Your task to perform on an android device: Go to accessibility settings Image 0: 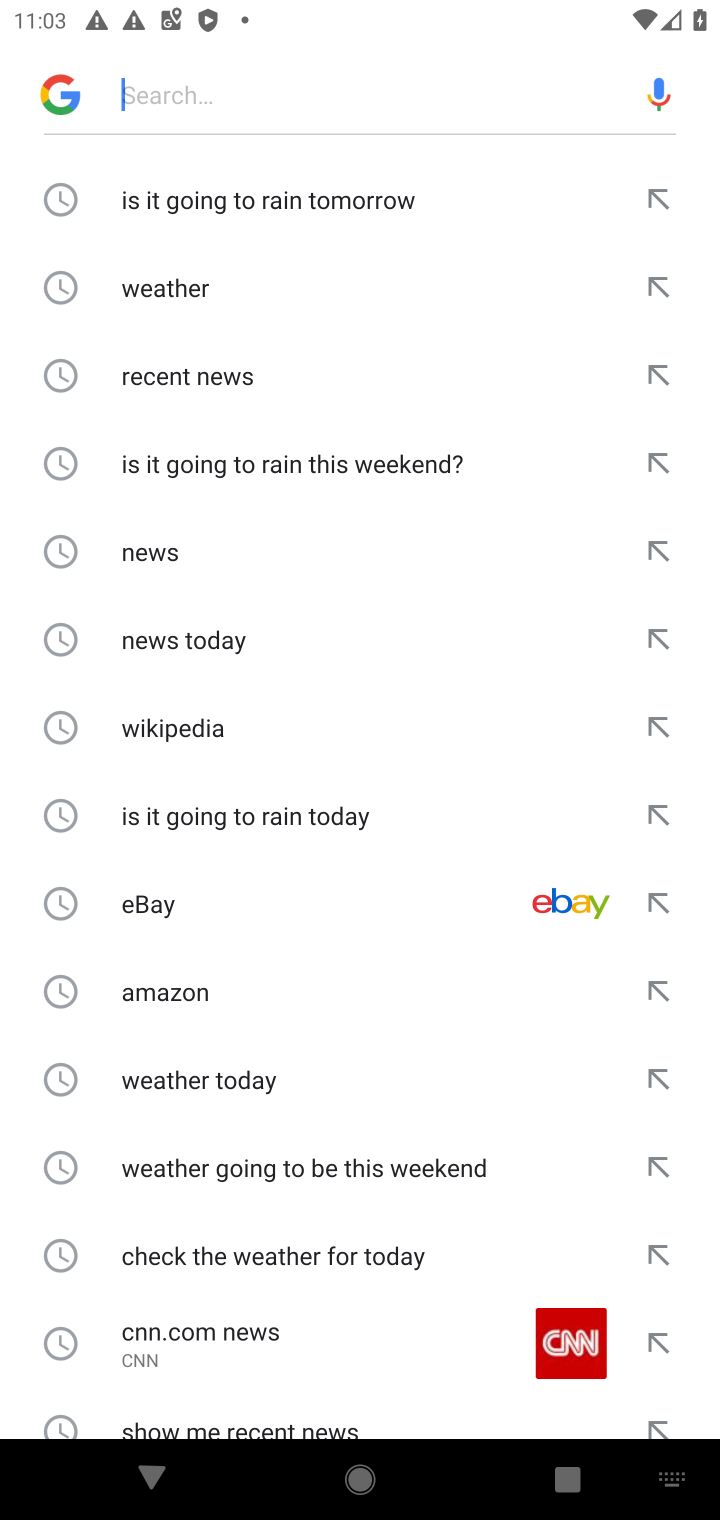
Step 0: press home button
Your task to perform on an android device: Go to accessibility settings Image 1: 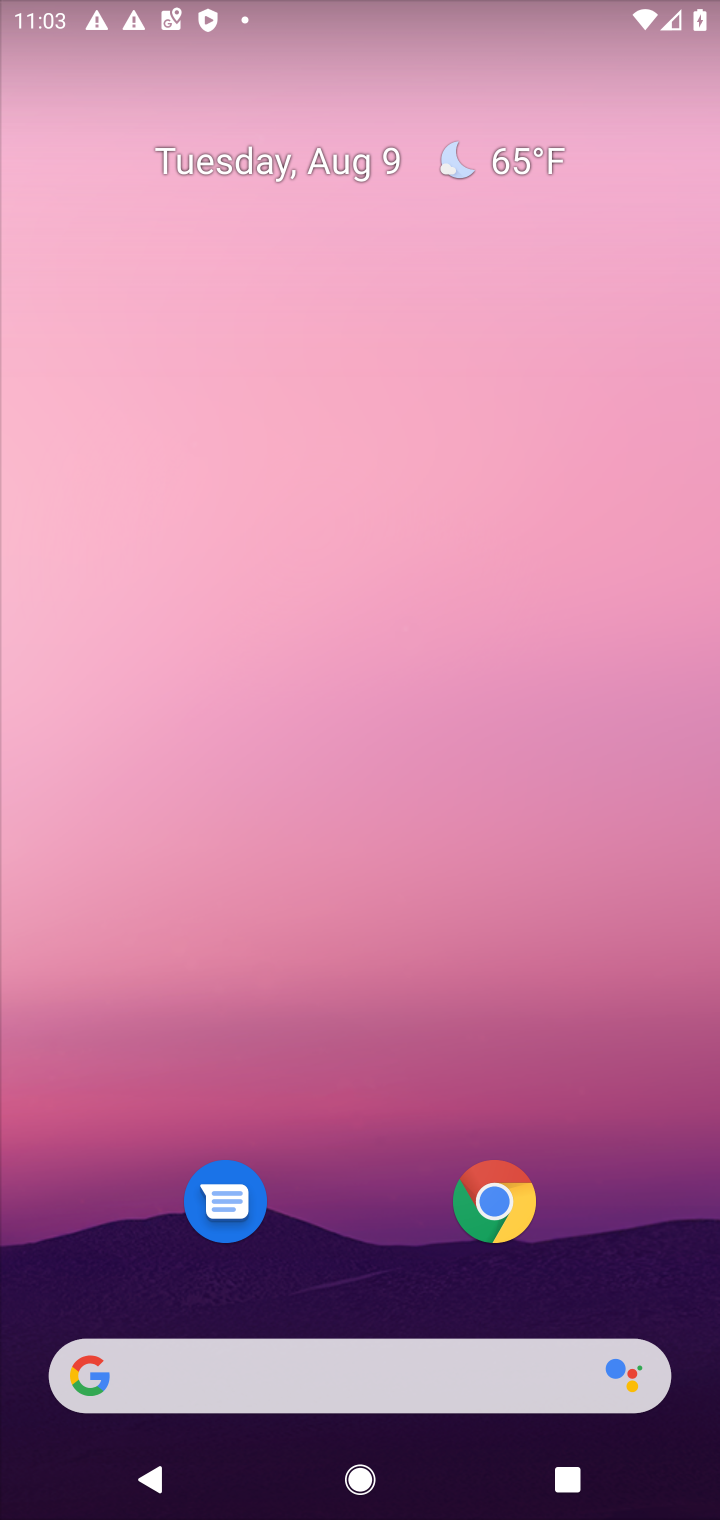
Step 1: press home button
Your task to perform on an android device: Go to accessibility settings Image 2: 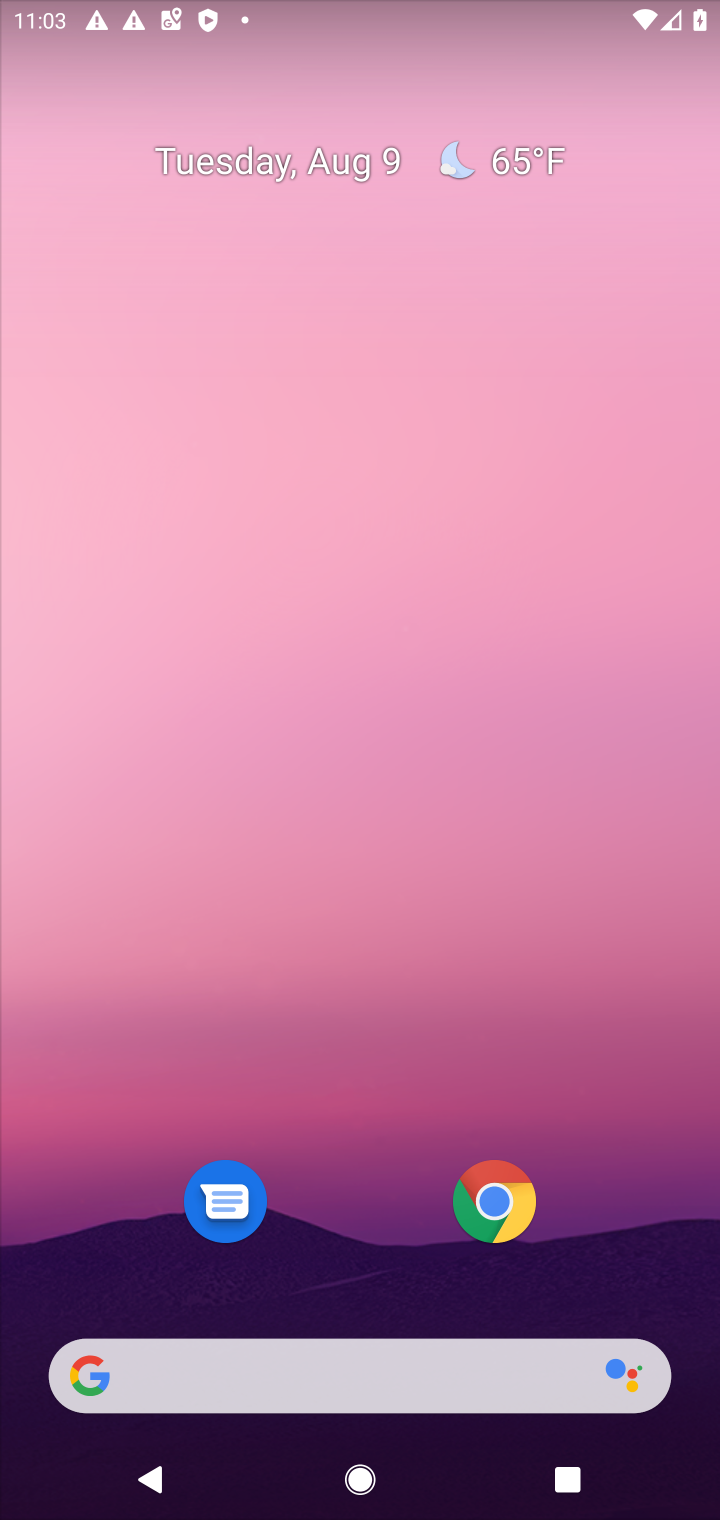
Step 2: drag from (372, 1004) to (420, 157)
Your task to perform on an android device: Go to accessibility settings Image 3: 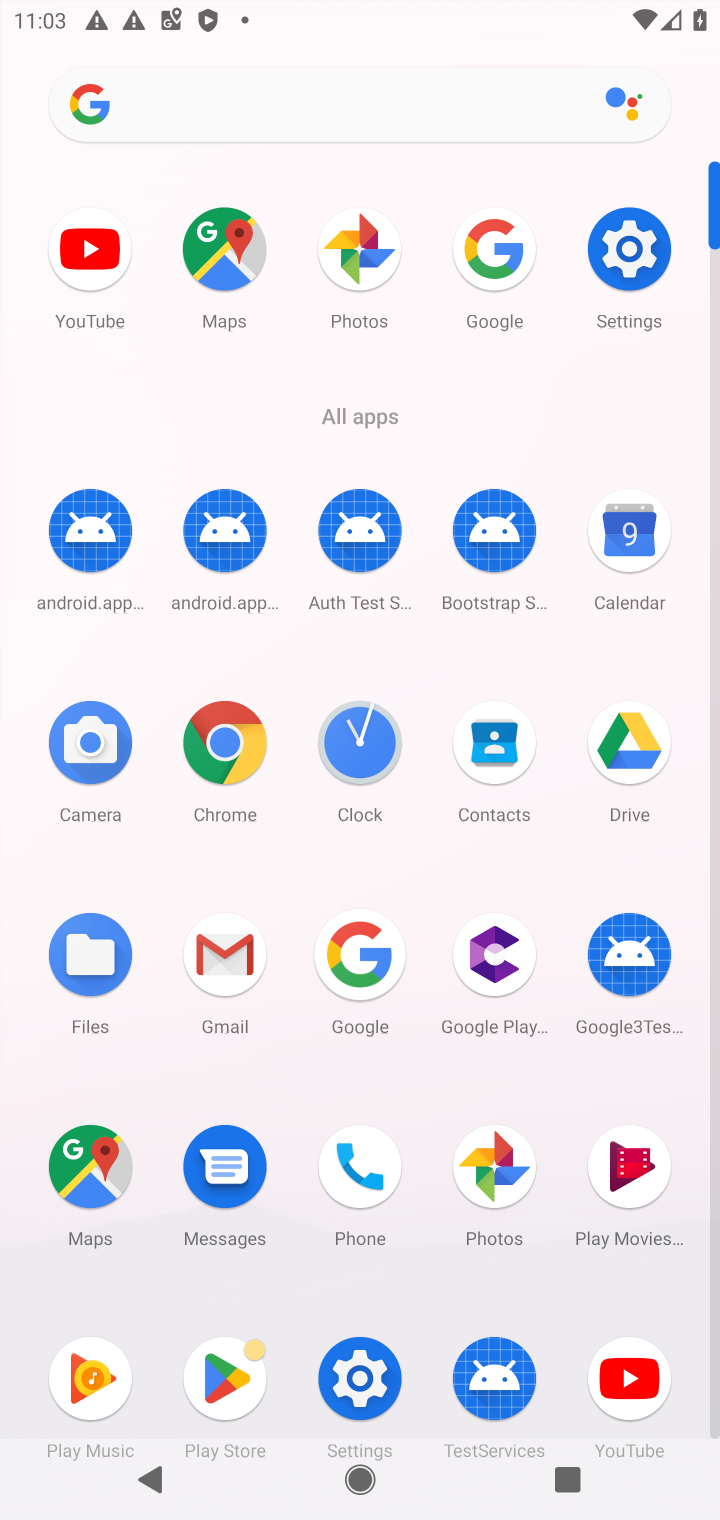
Step 3: click (647, 249)
Your task to perform on an android device: Go to accessibility settings Image 4: 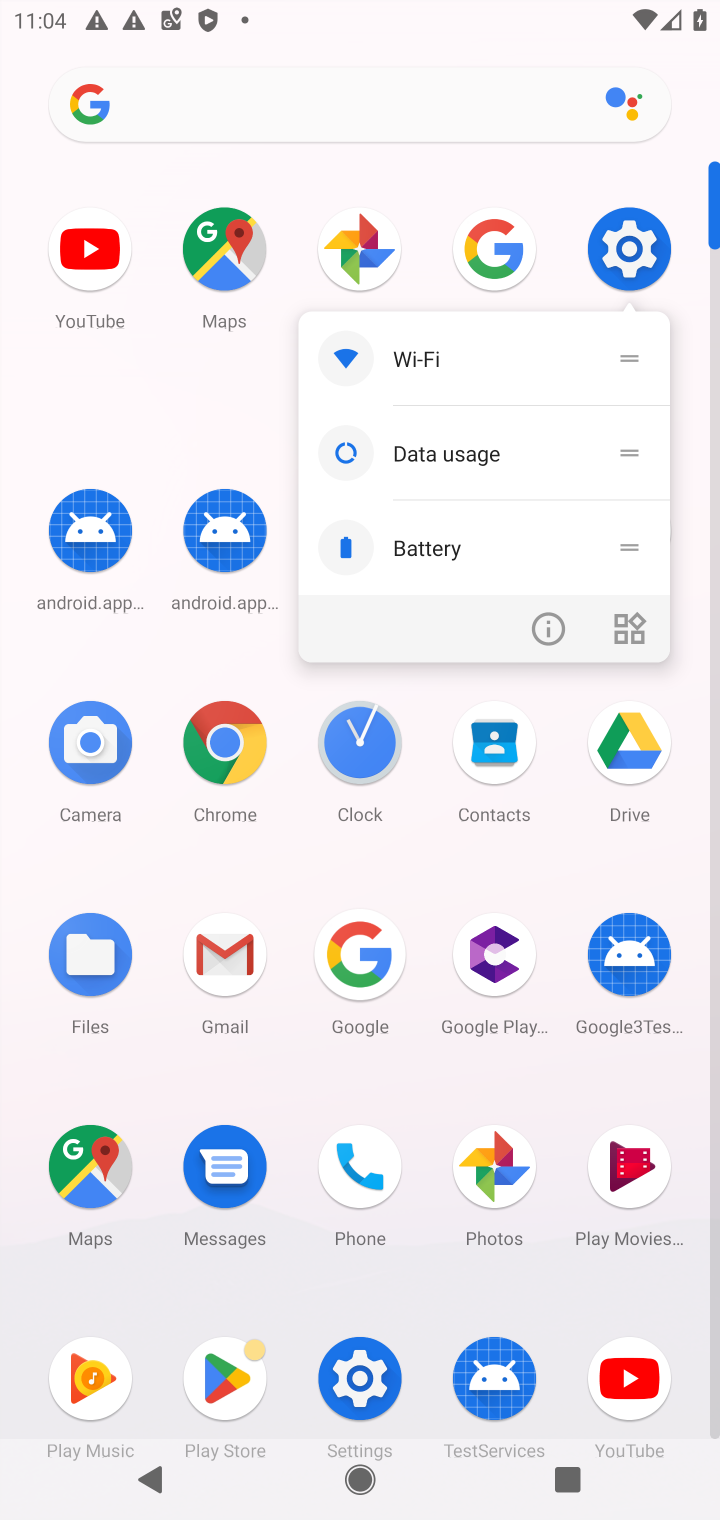
Step 4: click (641, 245)
Your task to perform on an android device: Go to accessibility settings Image 5: 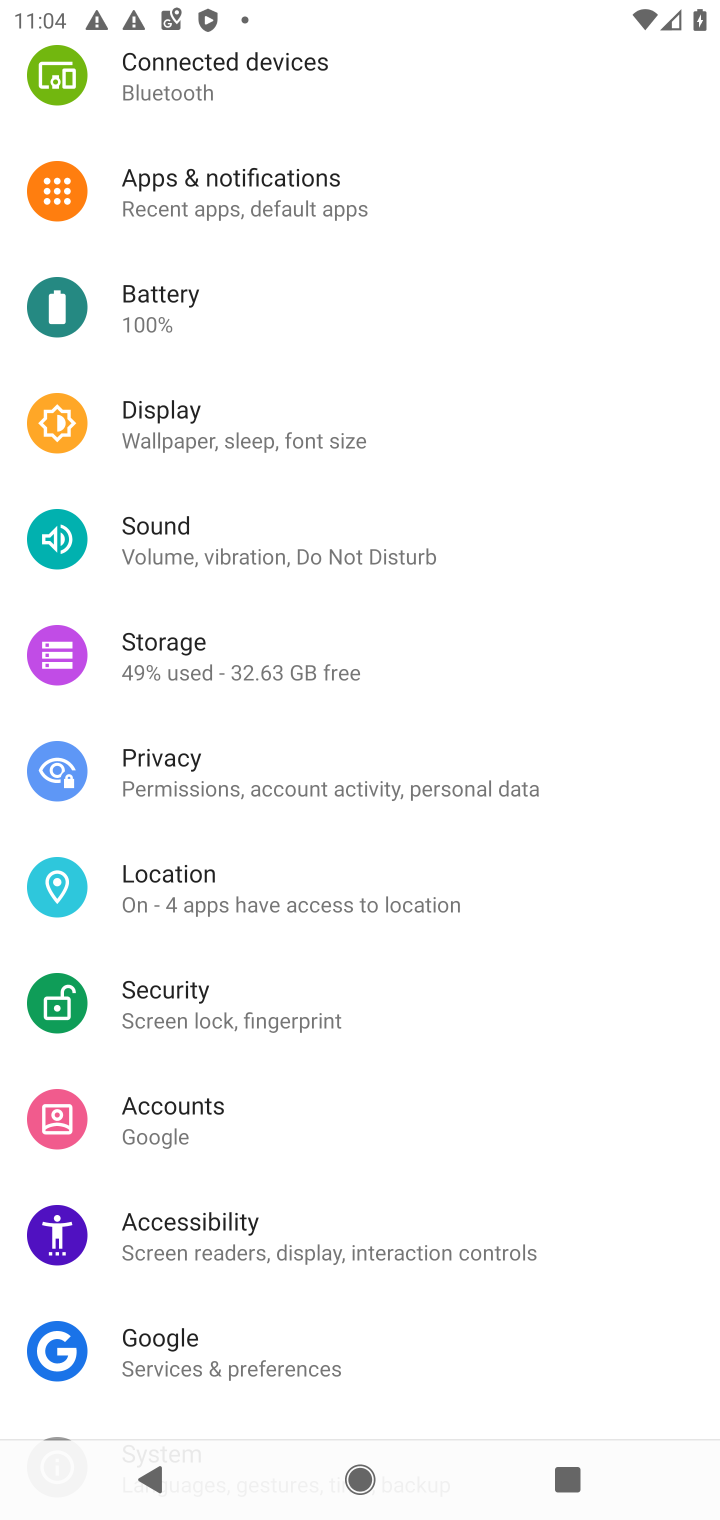
Step 5: click (214, 1237)
Your task to perform on an android device: Go to accessibility settings Image 6: 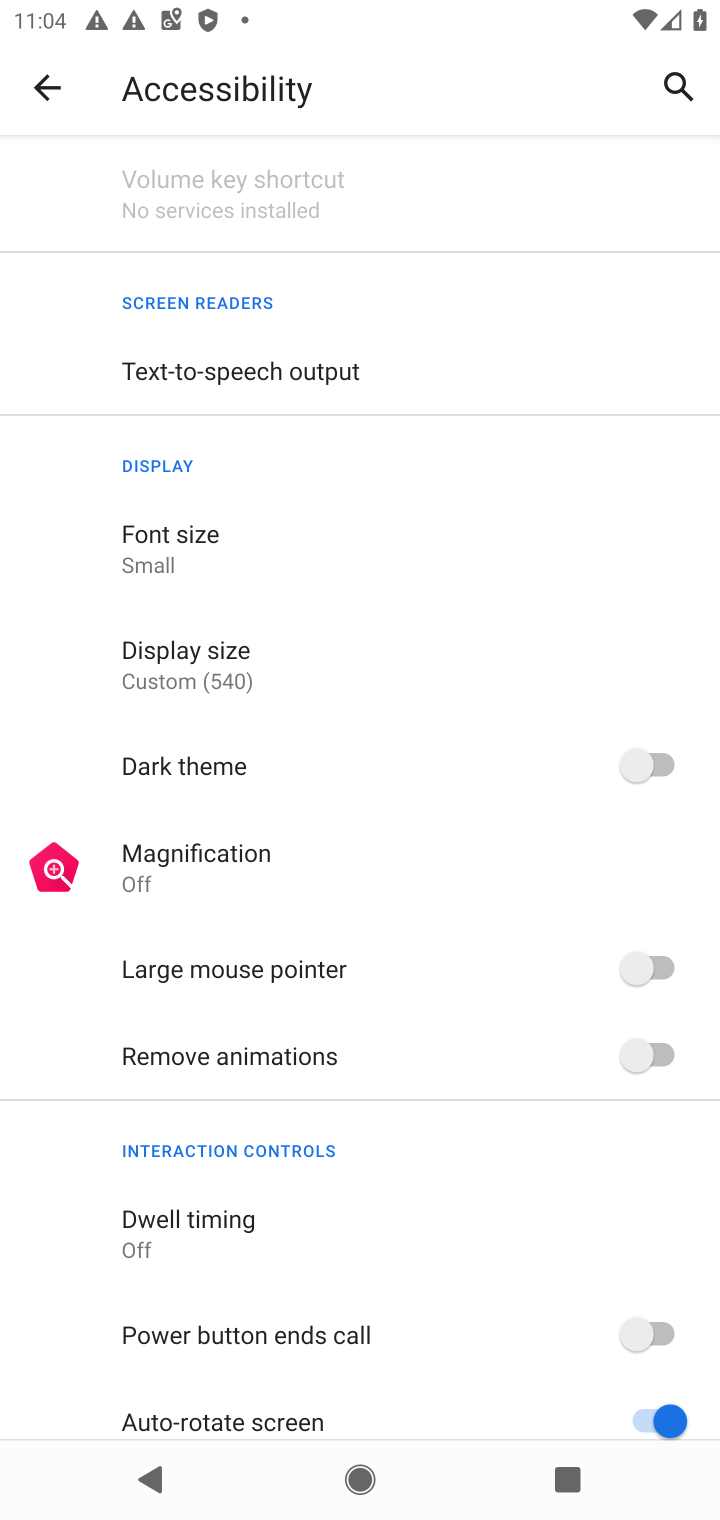
Step 6: task complete